Your task to perform on an android device: turn on priority inbox in the gmail app Image 0: 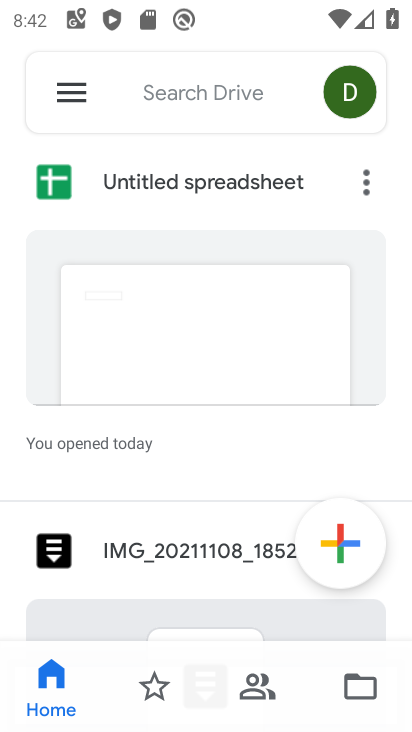
Step 0: press home button
Your task to perform on an android device: turn on priority inbox in the gmail app Image 1: 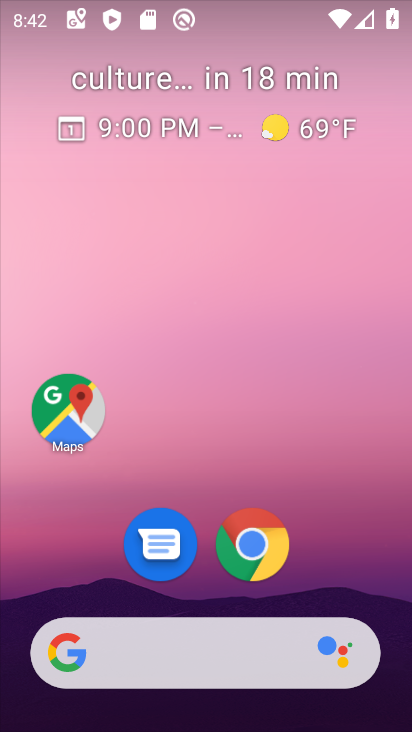
Step 1: drag from (217, 595) to (235, 154)
Your task to perform on an android device: turn on priority inbox in the gmail app Image 2: 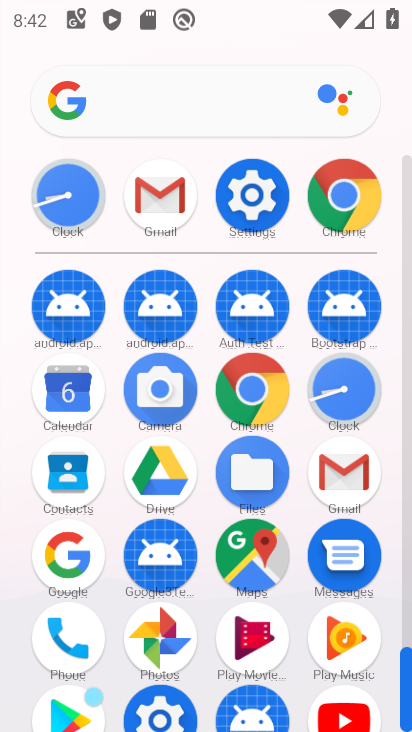
Step 2: click (167, 204)
Your task to perform on an android device: turn on priority inbox in the gmail app Image 3: 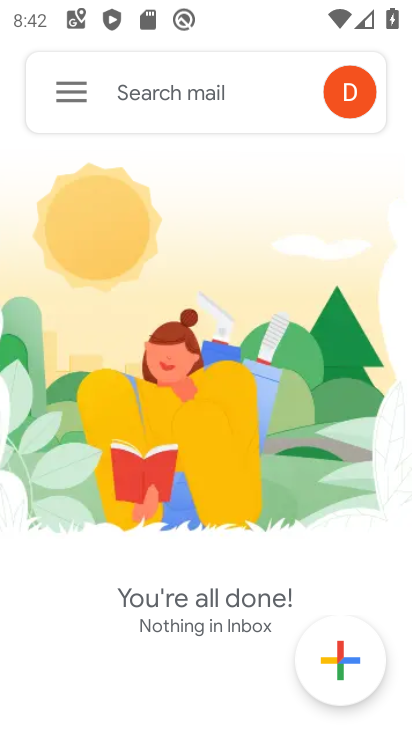
Step 3: click (88, 101)
Your task to perform on an android device: turn on priority inbox in the gmail app Image 4: 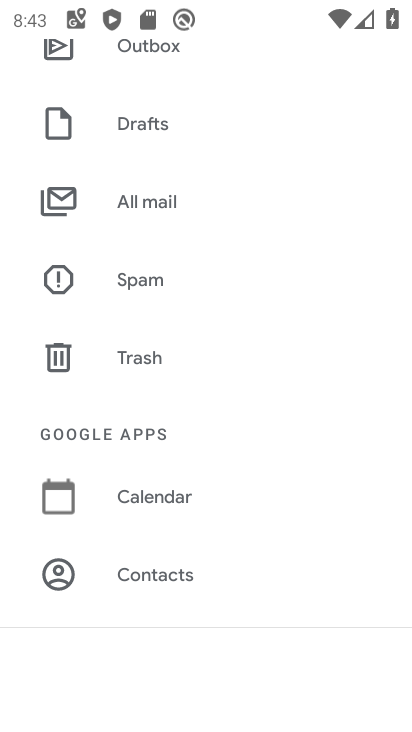
Step 4: drag from (206, 514) to (221, 215)
Your task to perform on an android device: turn on priority inbox in the gmail app Image 5: 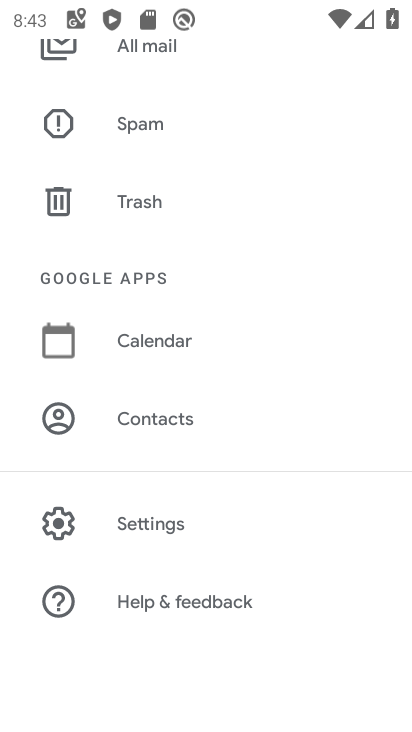
Step 5: click (180, 514)
Your task to perform on an android device: turn on priority inbox in the gmail app Image 6: 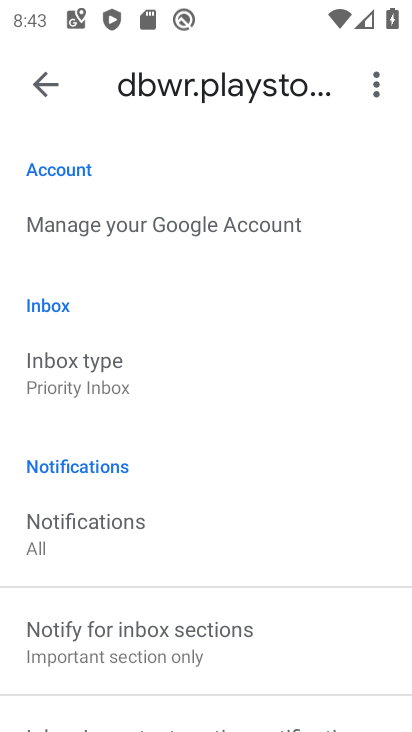
Step 6: click (135, 379)
Your task to perform on an android device: turn on priority inbox in the gmail app Image 7: 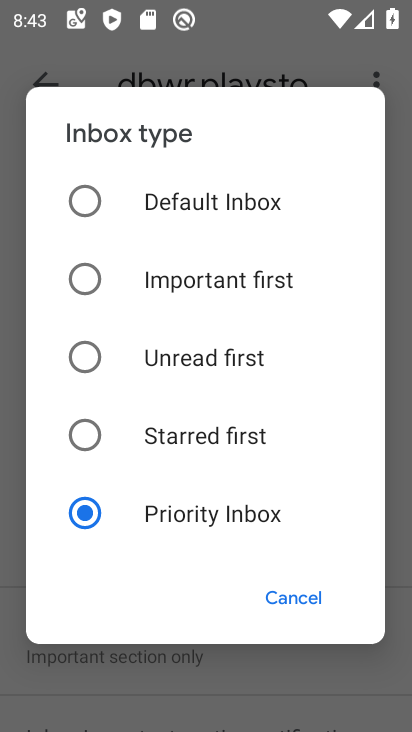
Step 7: task complete